Your task to perform on an android device: turn off picture-in-picture Image 0: 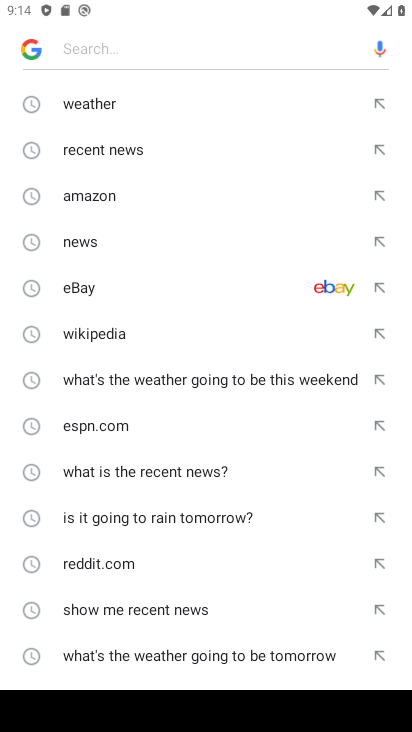
Step 0: press home button
Your task to perform on an android device: turn off picture-in-picture Image 1: 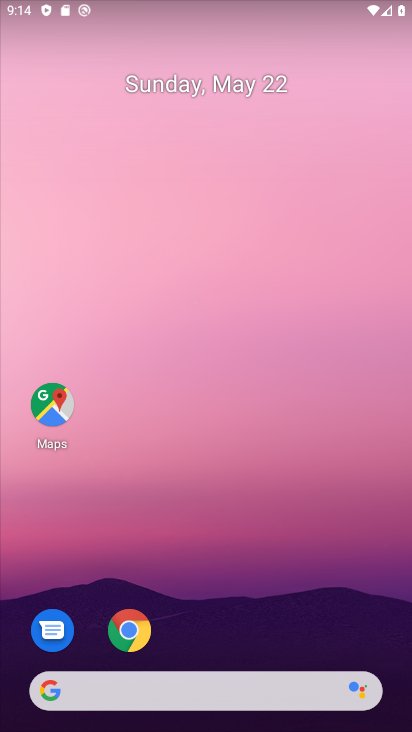
Step 1: click (121, 635)
Your task to perform on an android device: turn off picture-in-picture Image 2: 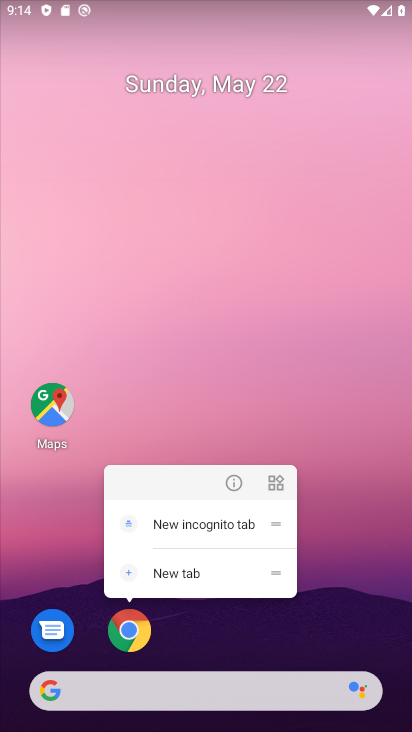
Step 2: click (232, 479)
Your task to perform on an android device: turn off picture-in-picture Image 3: 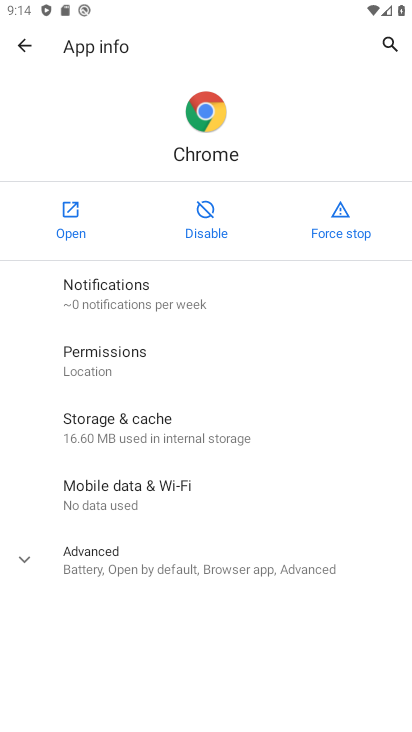
Step 3: click (22, 558)
Your task to perform on an android device: turn off picture-in-picture Image 4: 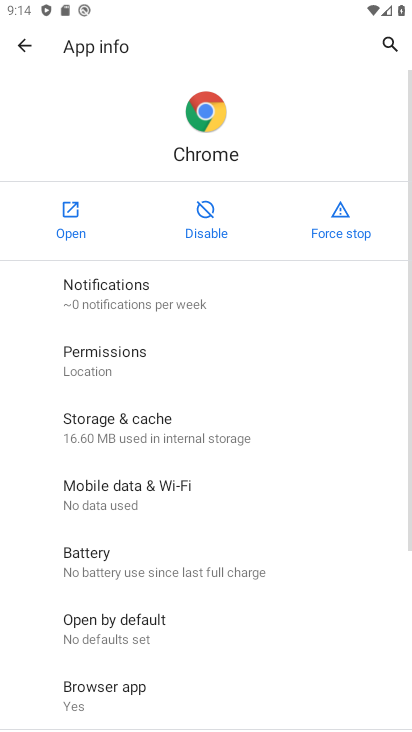
Step 4: drag from (268, 696) to (297, 337)
Your task to perform on an android device: turn off picture-in-picture Image 5: 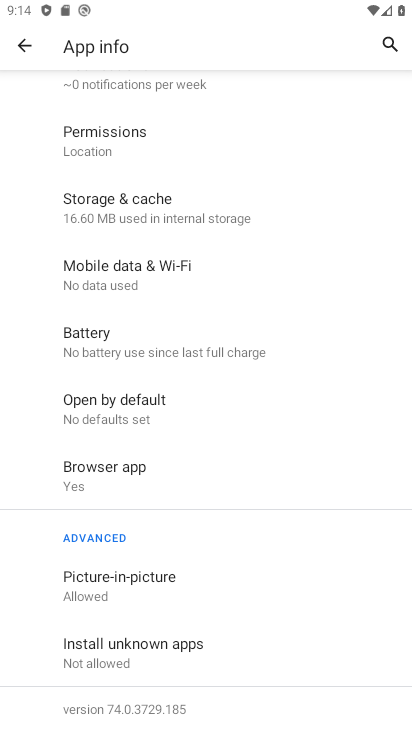
Step 5: click (87, 579)
Your task to perform on an android device: turn off picture-in-picture Image 6: 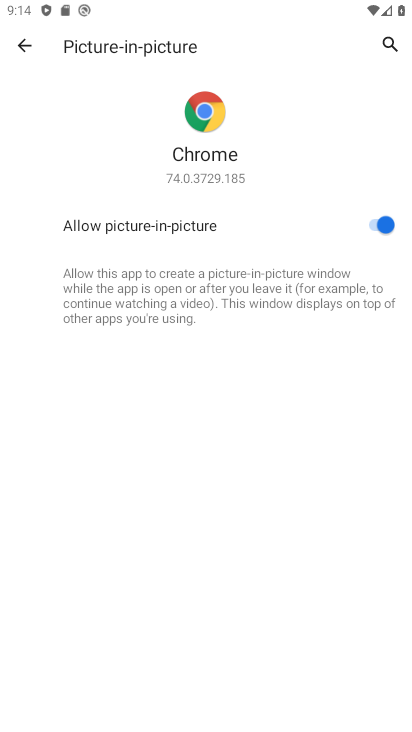
Step 6: click (103, 579)
Your task to perform on an android device: turn off picture-in-picture Image 7: 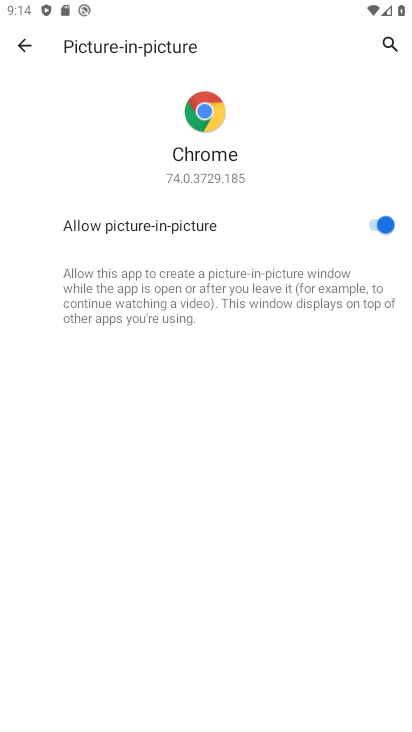
Step 7: click (368, 224)
Your task to perform on an android device: turn off picture-in-picture Image 8: 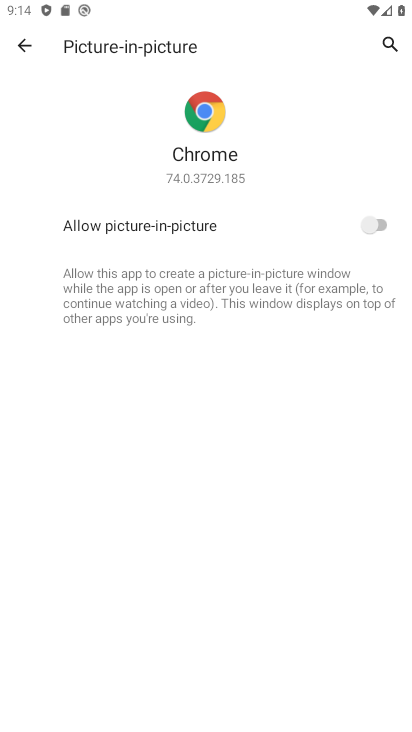
Step 8: task complete